Your task to perform on an android device: allow cookies in the chrome app Image 0: 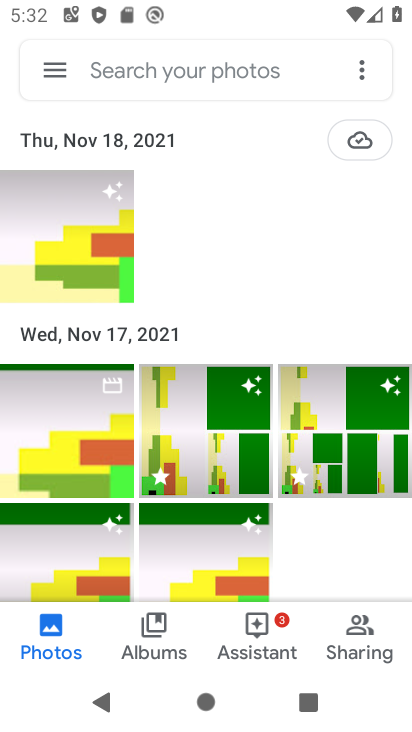
Step 0: press home button
Your task to perform on an android device: allow cookies in the chrome app Image 1: 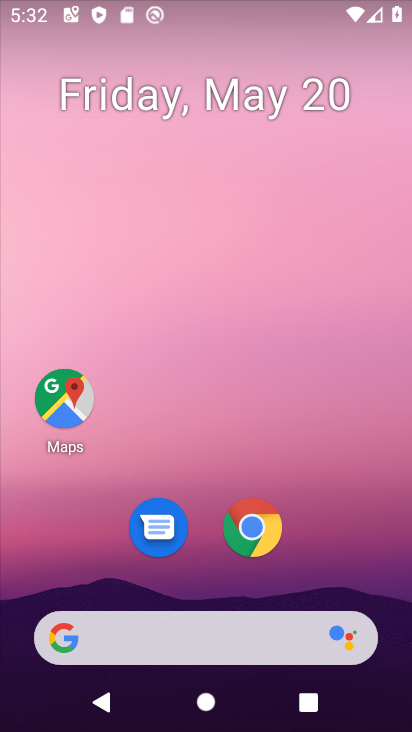
Step 1: drag from (326, 625) to (272, 14)
Your task to perform on an android device: allow cookies in the chrome app Image 2: 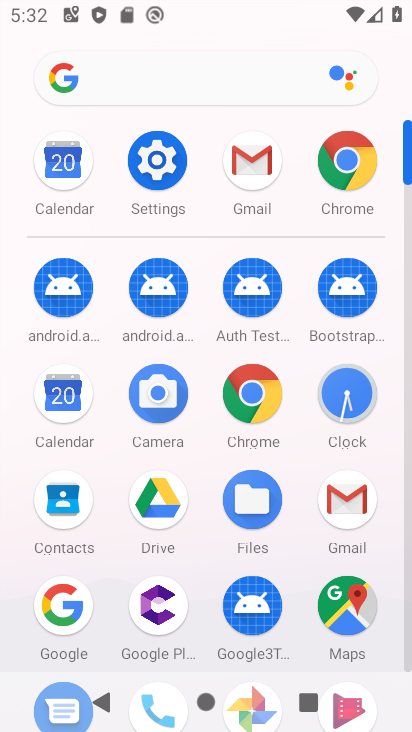
Step 2: click (265, 400)
Your task to perform on an android device: allow cookies in the chrome app Image 3: 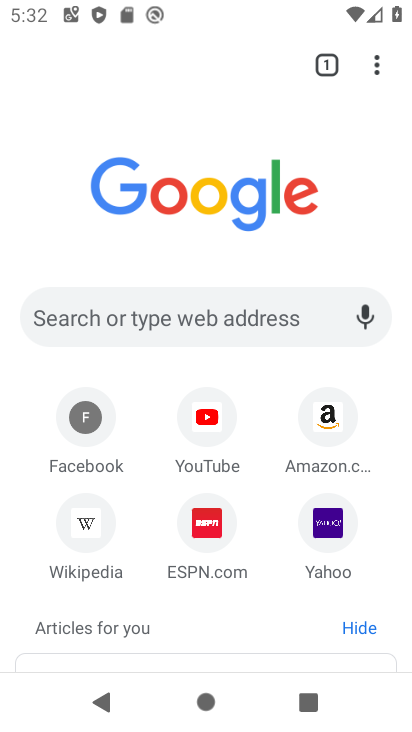
Step 3: drag from (380, 65) to (190, 543)
Your task to perform on an android device: allow cookies in the chrome app Image 4: 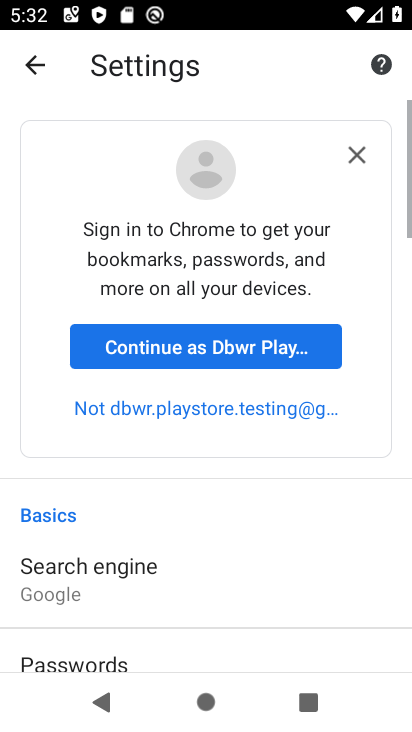
Step 4: drag from (216, 557) to (218, 70)
Your task to perform on an android device: allow cookies in the chrome app Image 5: 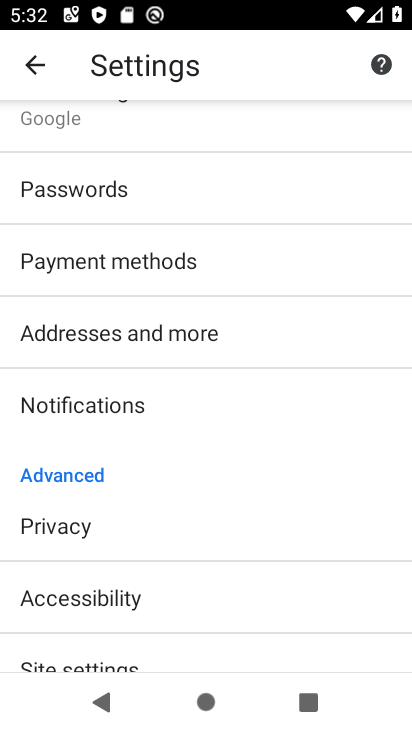
Step 5: drag from (208, 625) to (229, 165)
Your task to perform on an android device: allow cookies in the chrome app Image 6: 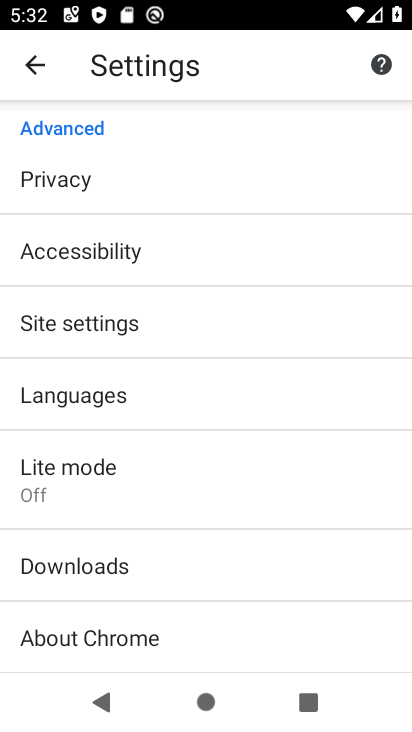
Step 6: click (96, 328)
Your task to perform on an android device: allow cookies in the chrome app Image 7: 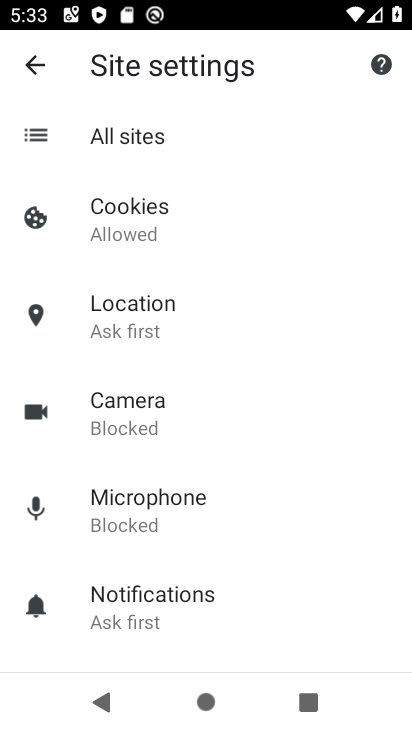
Step 7: click (151, 202)
Your task to perform on an android device: allow cookies in the chrome app Image 8: 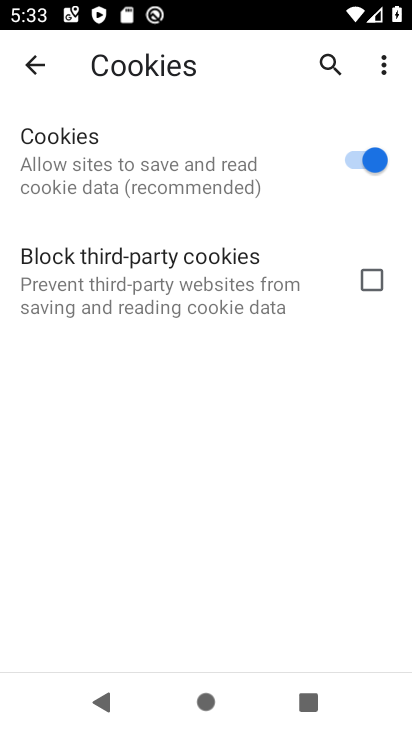
Step 8: task complete